Your task to perform on an android device: clear all cookies in the chrome app Image 0: 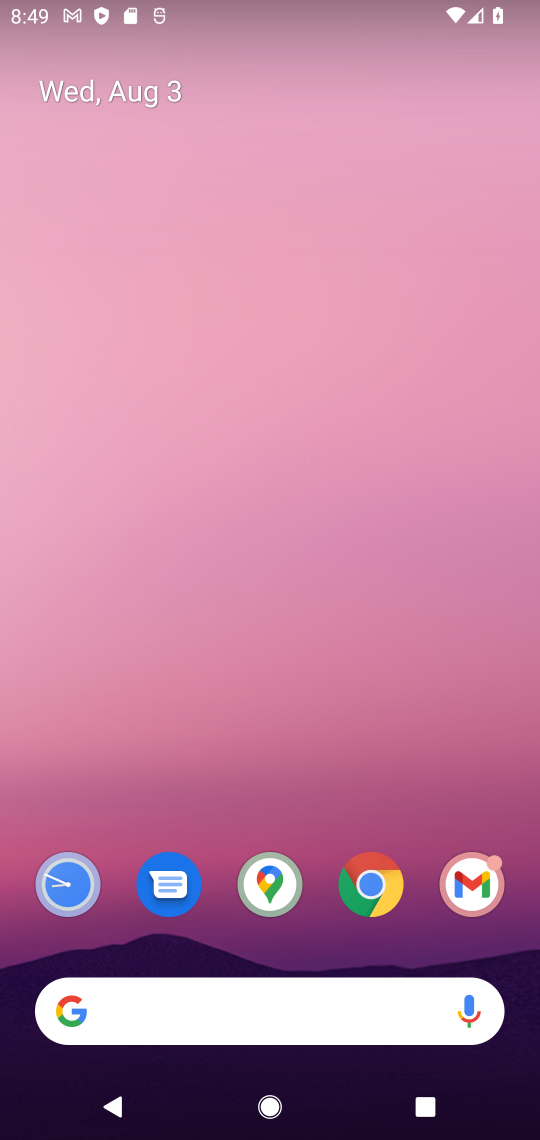
Step 0: click (367, 881)
Your task to perform on an android device: clear all cookies in the chrome app Image 1: 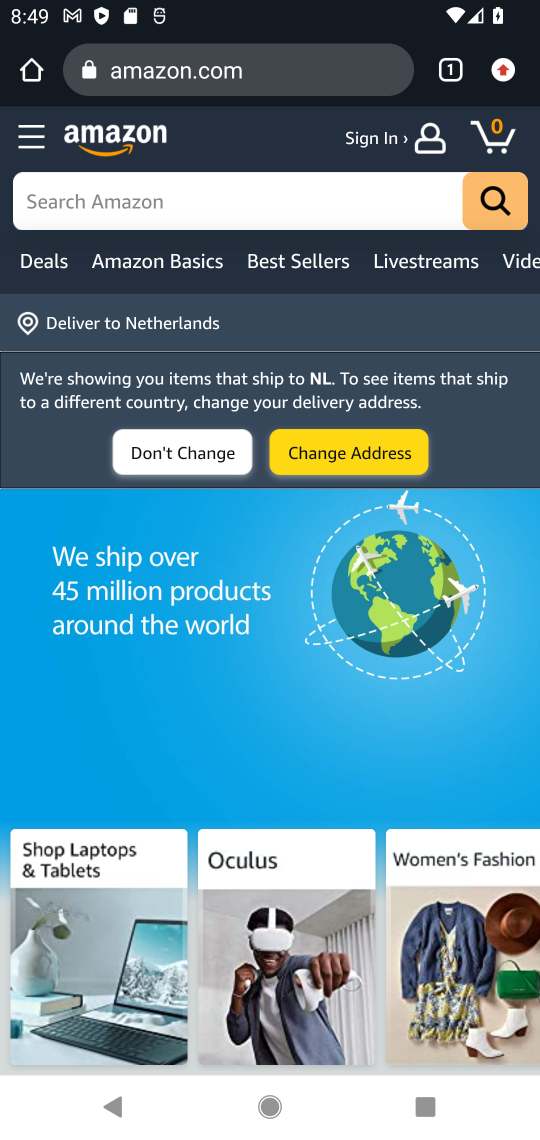
Step 1: click (456, 74)
Your task to perform on an android device: clear all cookies in the chrome app Image 2: 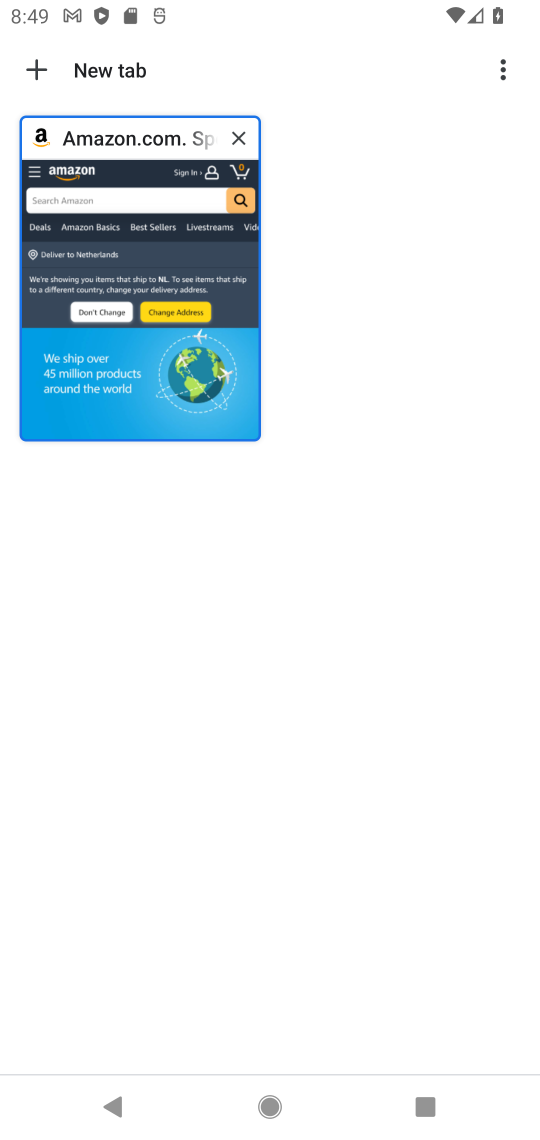
Step 2: click (500, 61)
Your task to perform on an android device: clear all cookies in the chrome app Image 3: 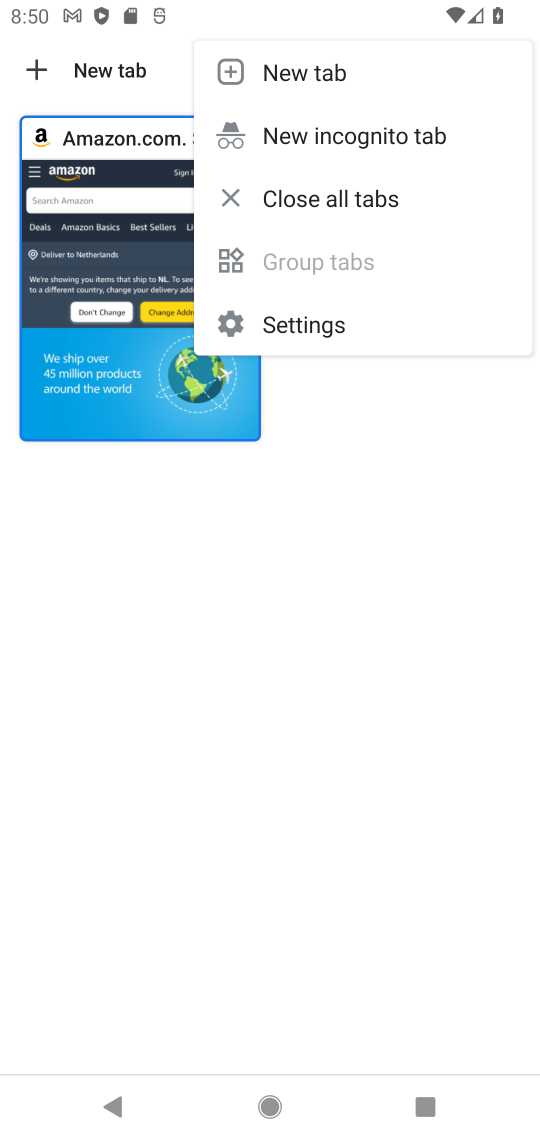
Step 3: click (297, 311)
Your task to perform on an android device: clear all cookies in the chrome app Image 4: 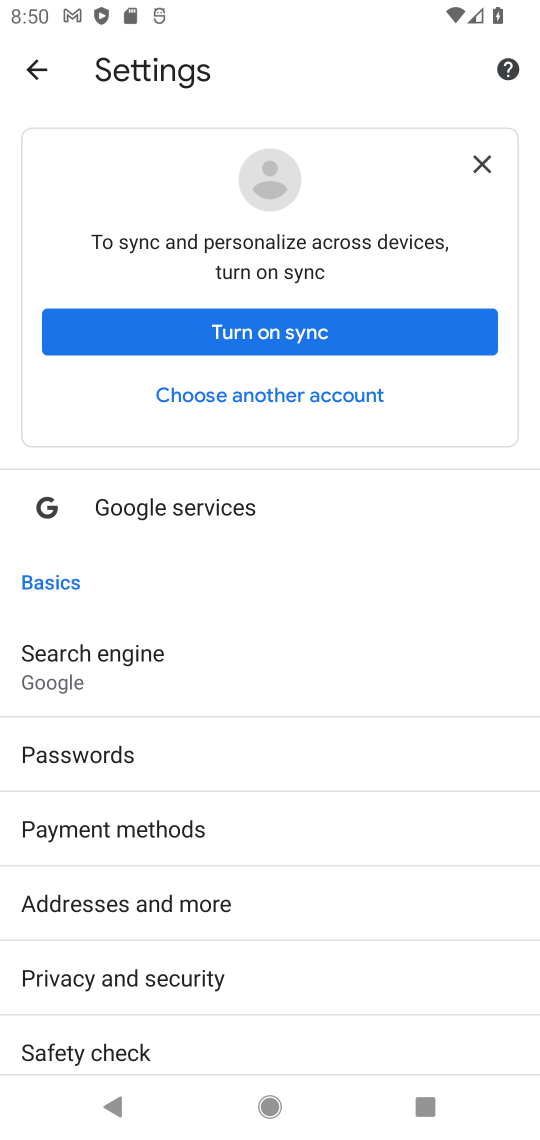
Step 4: task complete